Your task to perform on an android device: Open Yahoo.com Image 0: 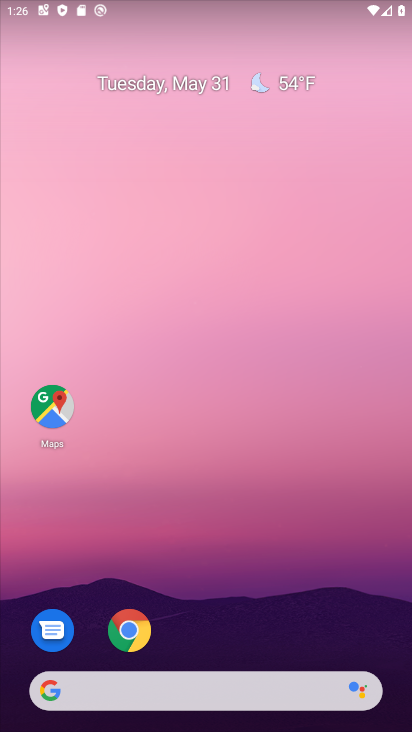
Step 0: click (129, 628)
Your task to perform on an android device: Open Yahoo.com Image 1: 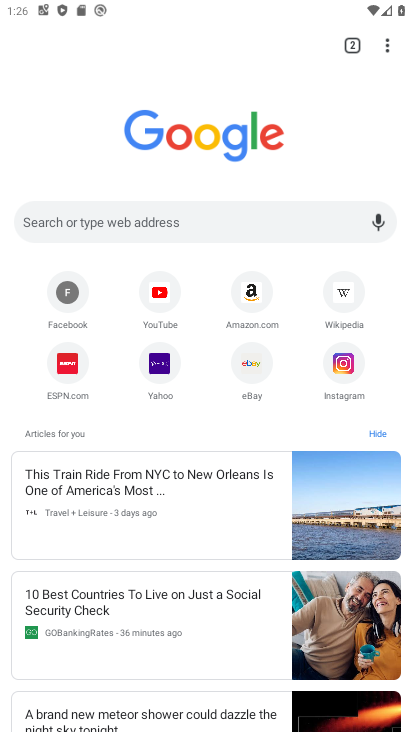
Step 1: click (169, 363)
Your task to perform on an android device: Open Yahoo.com Image 2: 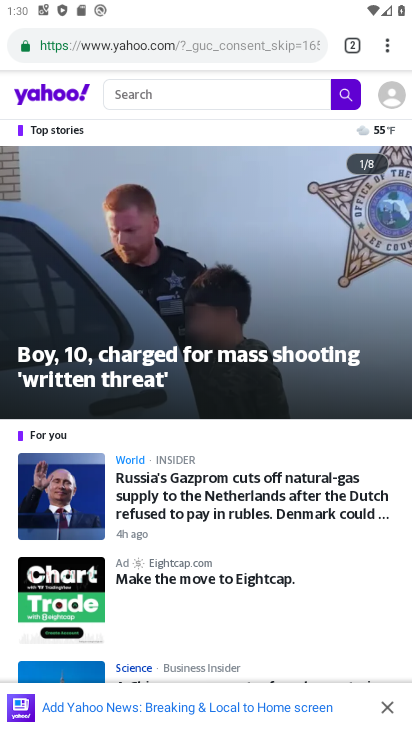
Step 2: task complete